Your task to perform on an android device: see sites visited before in the chrome app Image 0: 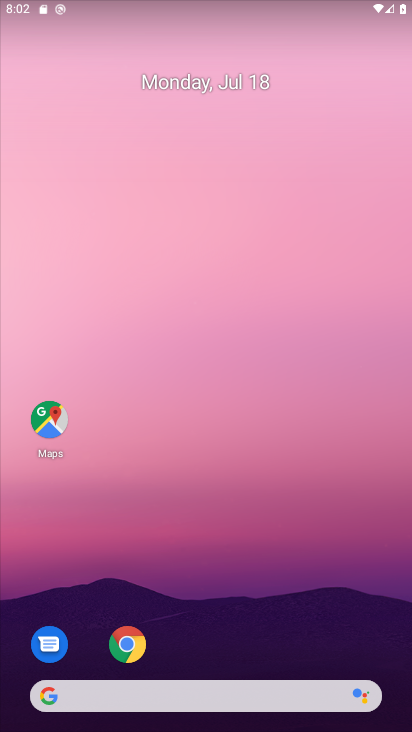
Step 0: click (130, 640)
Your task to perform on an android device: see sites visited before in the chrome app Image 1: 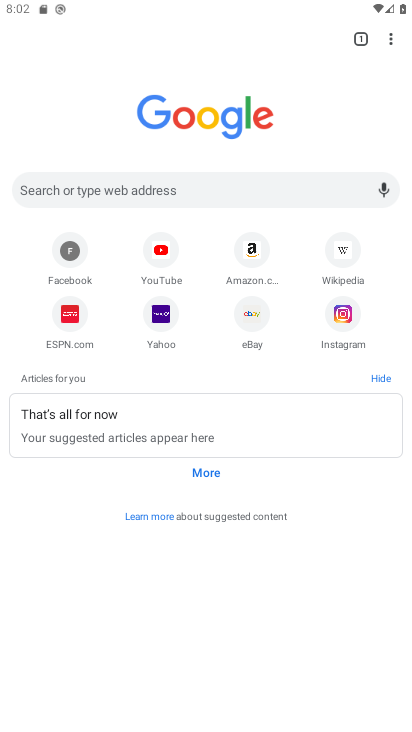
Step 1: click (390, 39)
Your task to perform on an android device: see sites visited before in the chrome app Image 2: 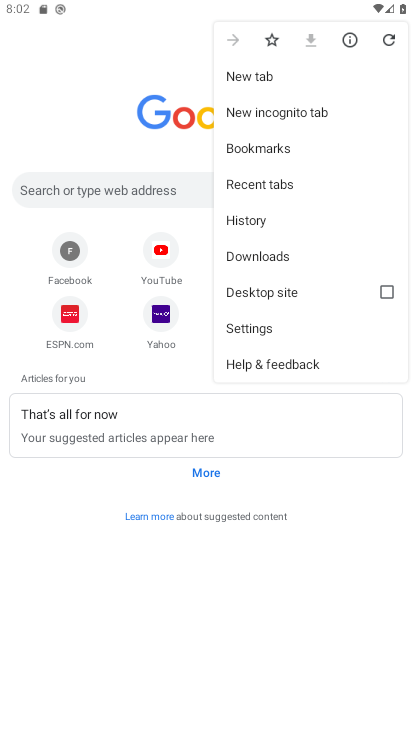
Step 2: click (331, 177)
Your task to perform on an android device: see sites visited before in the chrome app Image 3: 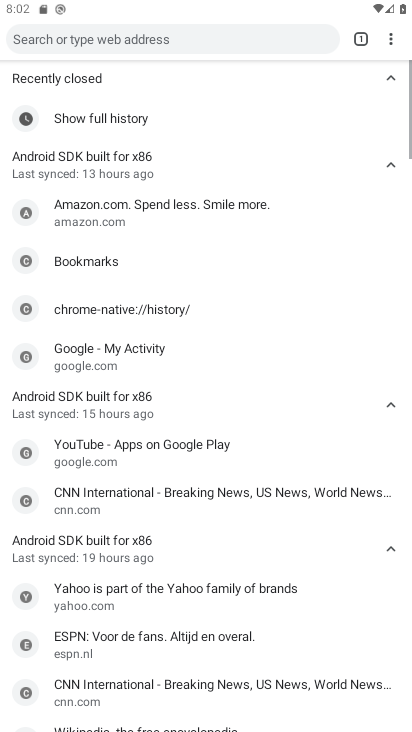
Step 3: task complete